Your task to perform on an android device: What is the recent news? Image 0: 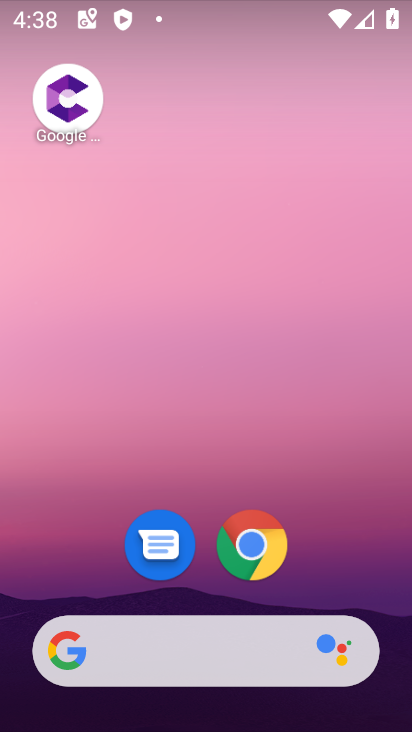
Step 0: drag from (324, 525) to (261, 15)
Your task to perform on an android device: What is the recent news? Image 1: 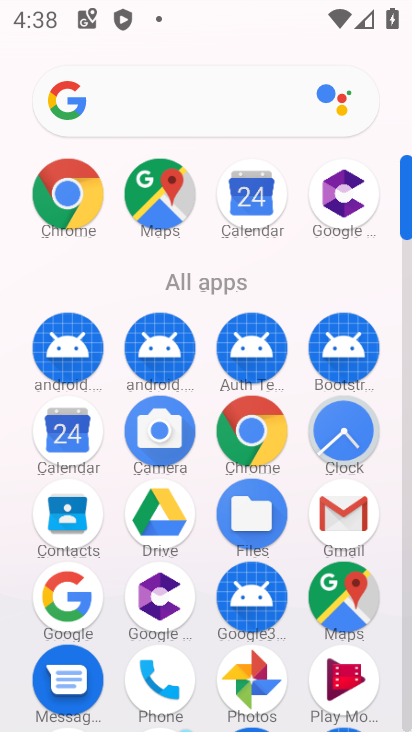
Step 1: click (253, 426)
Your task to perform on an android device: What is the recent news? Image 2: 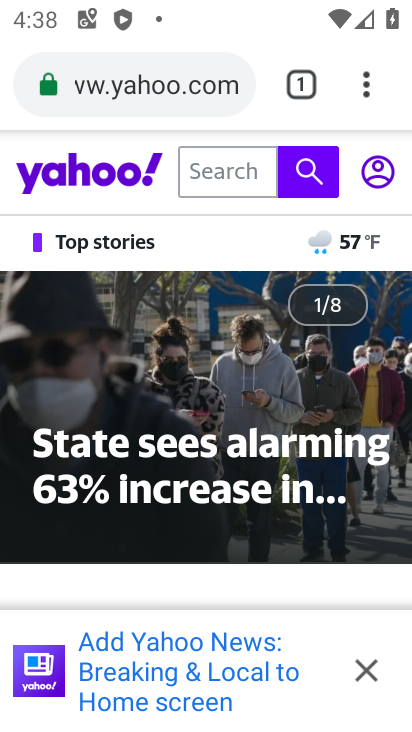
Step 2: click (136, 85)
Your task to perform on an android device: What is the recent news? Image 3: 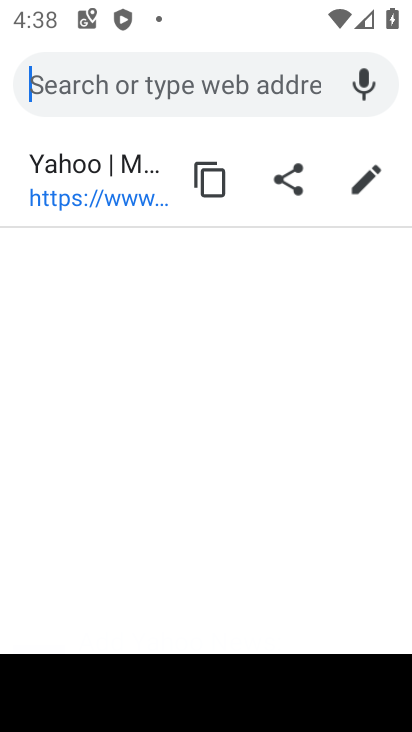
Step 3: click (129, 79)
Your task to perform on an android device: What is the recent news? Image 4: 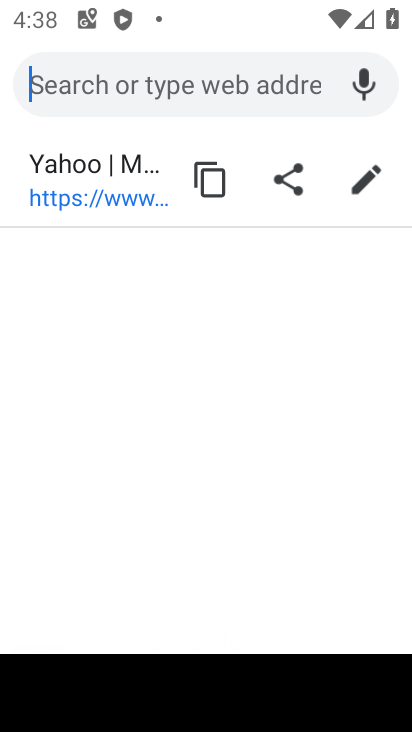
Step 4: type "What is the recent news?"
Your task to perform on an android device: What is the recent news? Image 5: 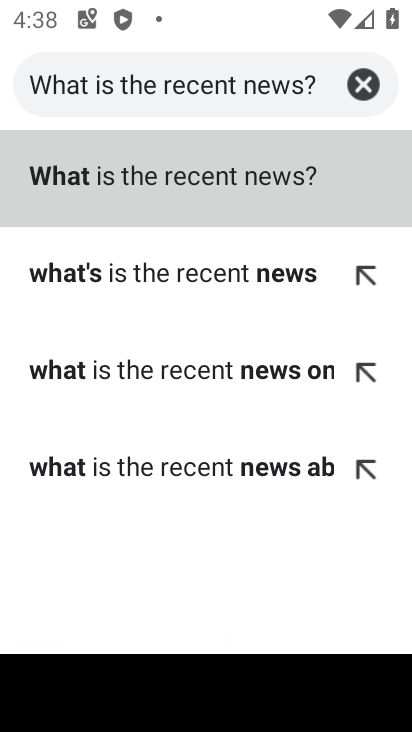
Step 5: click (290, 163)
Your task to perform on an android device: What is the recent news? Image 6: 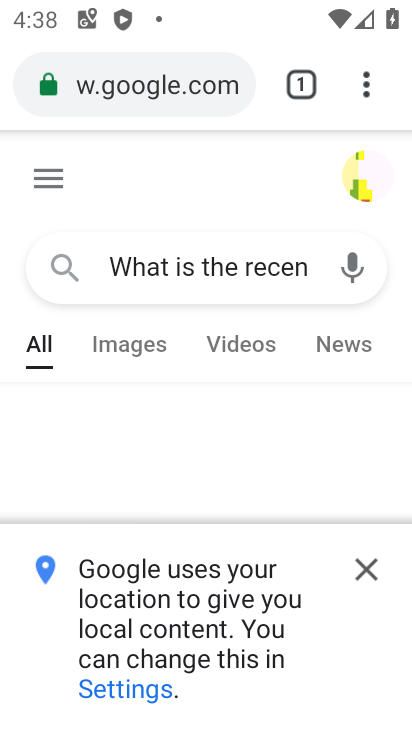
Step 6: click (358, 570)
Your task to perform on an android device: What is the recent news? Image 7: 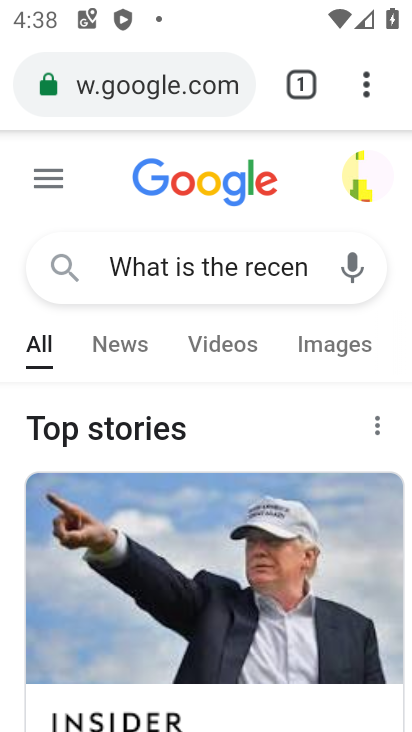
Step 7: task complete